Your task to perform on an android device: What's the weather today? Image 0: 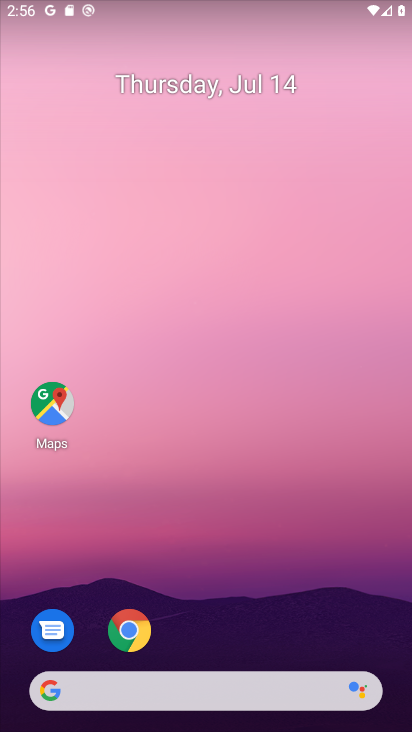
Step 0: drag from (222, 656) to (124, 1)
Your task to perform on an android device: What's the weather today? Image 1: 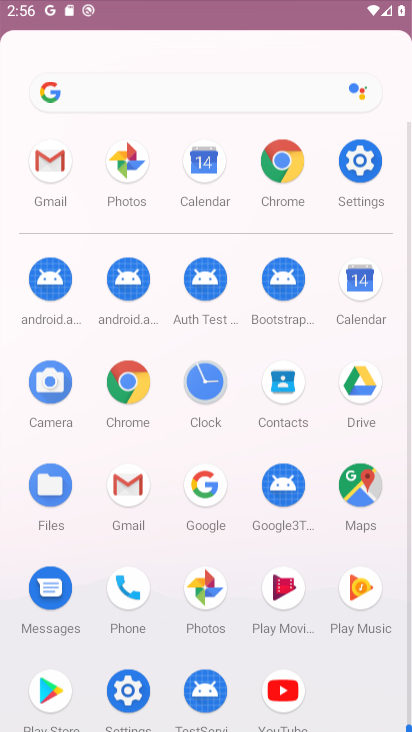
Step 1: drag from (192, 396) to (131, 19)
Your task to perform on an android device: What's the weather today? Image 2: 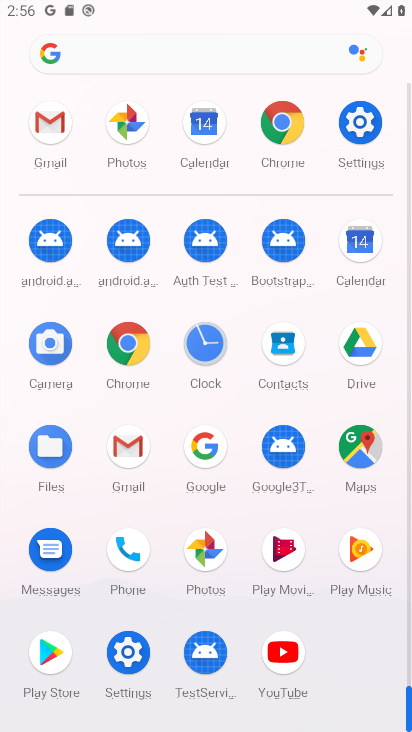
Step 2: click (292, 133)
Your task to perform on an android device: What's the weather today? Image 3: 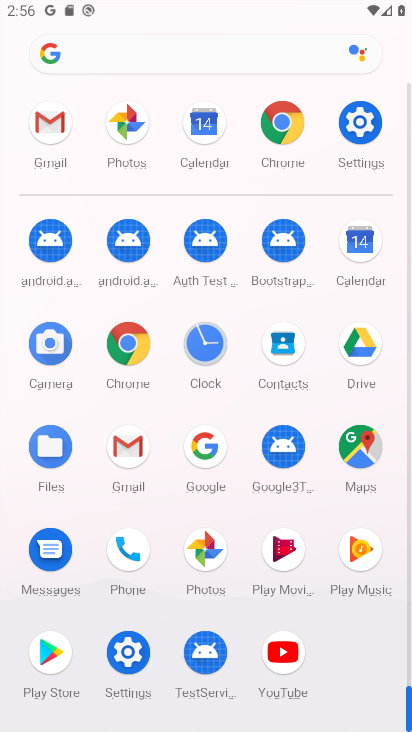
Step 3: click (288, 126)
Your task to perform on an android device: What's the weather today? Image 4: 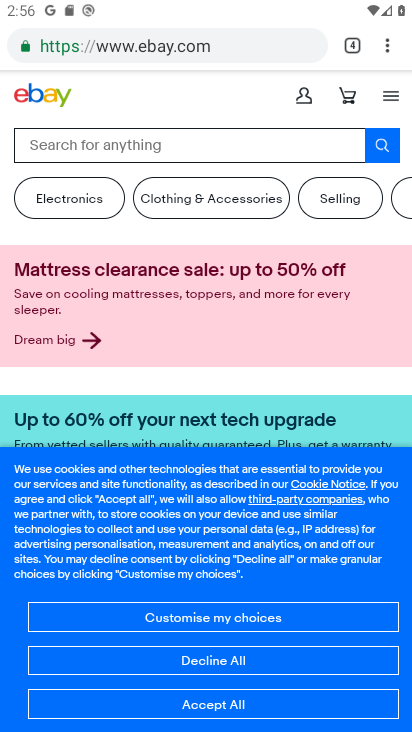
Step 4: drag from (380, 42) to (237, 87)
Your task to perform on an android device: What's the weather today? Image 5: 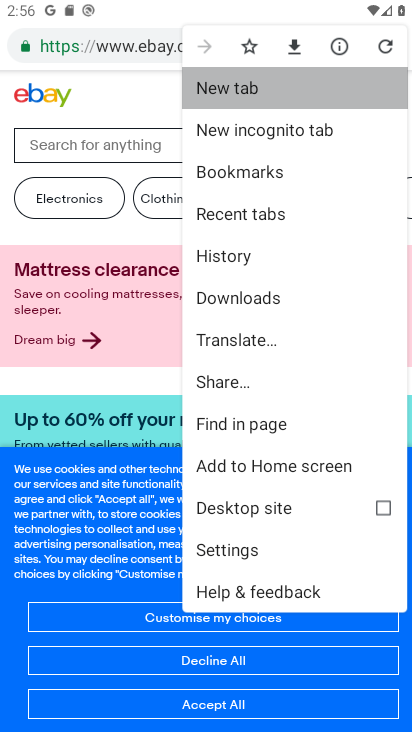
Step 5: click (237, 87)
Your task to perform on an android device: What's the weather today? Image 6: 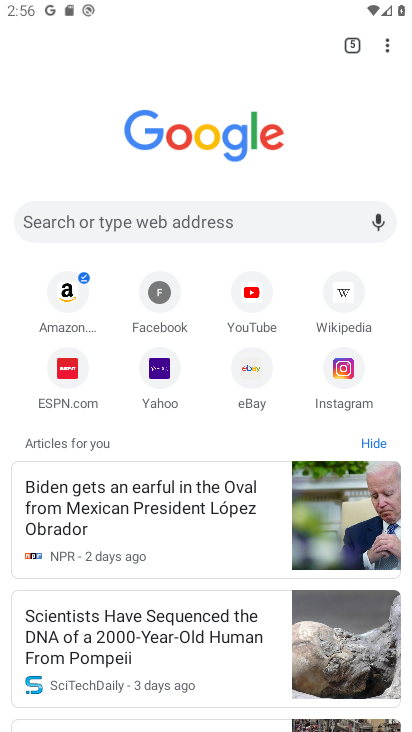
Step 6: click (92, 219)
Your task to perform on an android device: What's the weather today? Image 7: 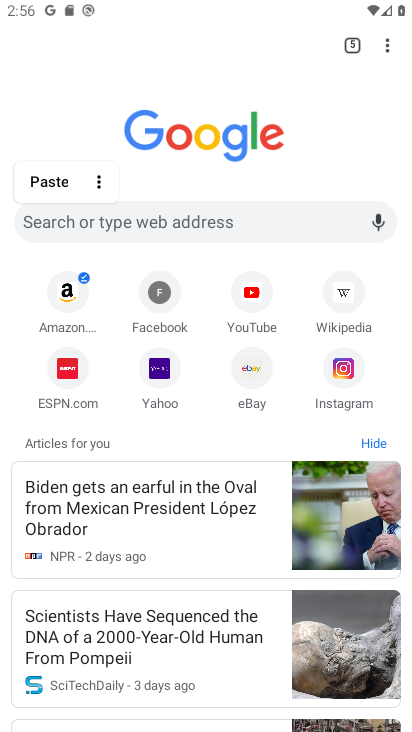
Step 7: type "weather today?"
Your task to perform on an android device: What's the weather today? Image 8: 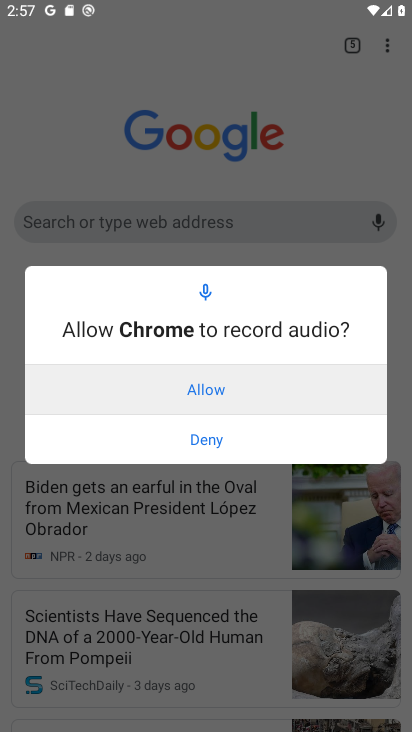
Step 8: click (213, 385)
Your task to perform on an android device: What's the weather today? Image 9: 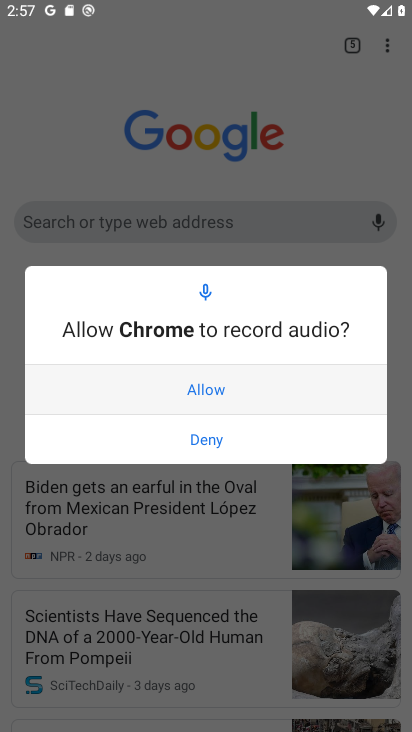
Step 9: click (213, 388)
Your task to perform on an android device: What's the weather today? Image 10: 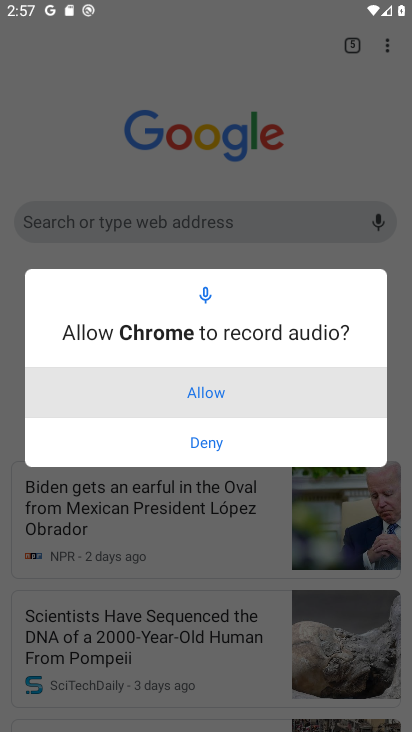
Step 10: click (213, 388)
Your task to perform on an android device: What's the weather today? Image 11: 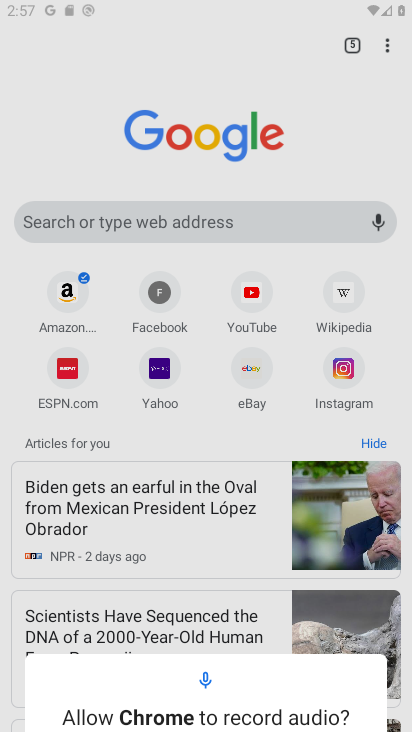
Step 11: click (213, 389)
Your task to perform on an android device: What's the weather today? Image 12: 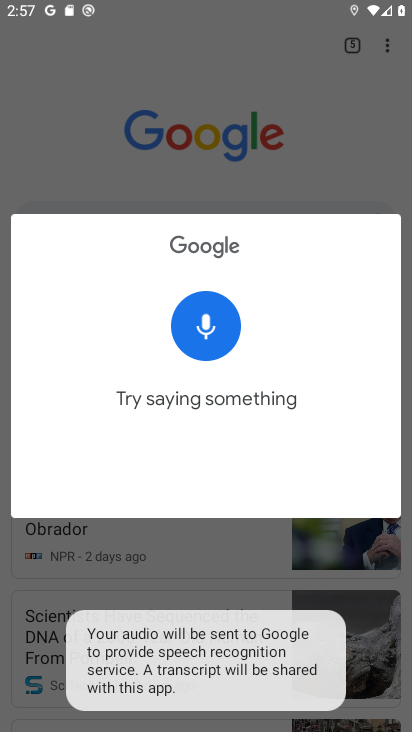
Step 12: click (85, 144)
Your task to perform on an android device: What's the weather today? Image 13: 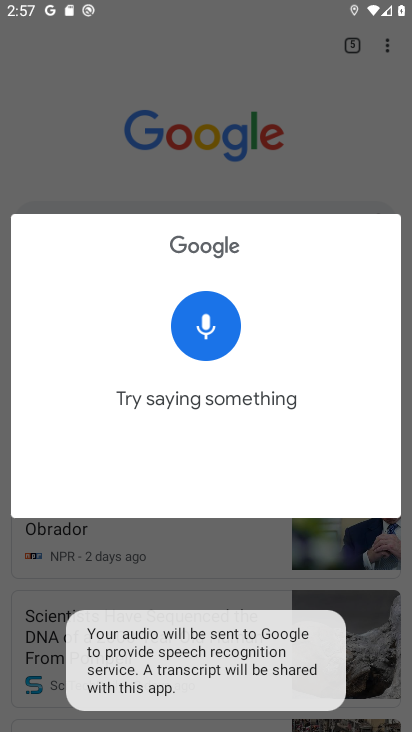
Step 13: click (85, 144)
Your task to perform on an android device: What's the weather today? Image 14: 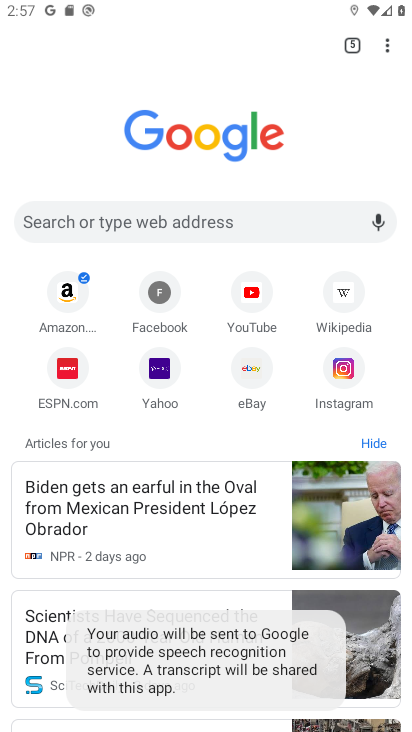
Step 14: click (85, 144)
Your task to perform on an android device: What's the weather today? Image 15: 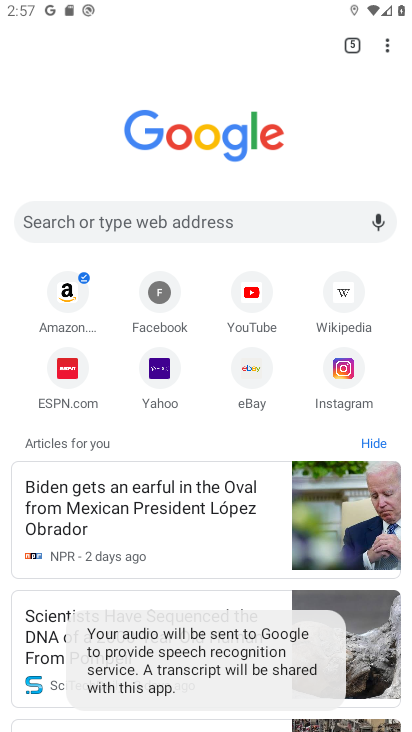
Step 15: click (86, 145)
Your task to perform on an android device: What's the weather today? Image 16: 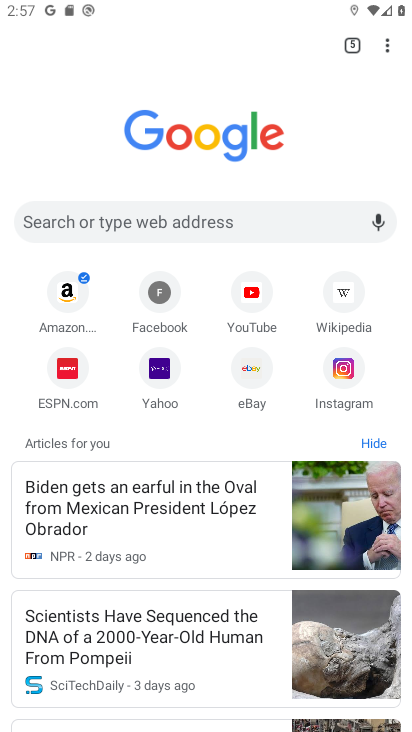
Step 16: click (89, 223)
Your task to perform on an android device: What's the weather today? Image 17: 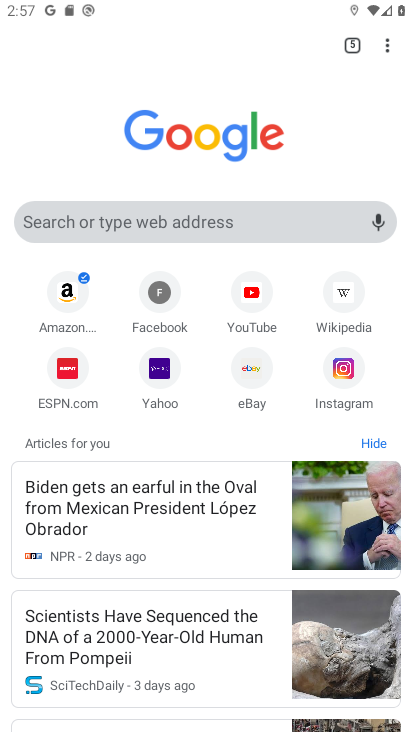
Step 17: click (89, 223)
Your task to perform on an android device: What's the weather today? Image 18: 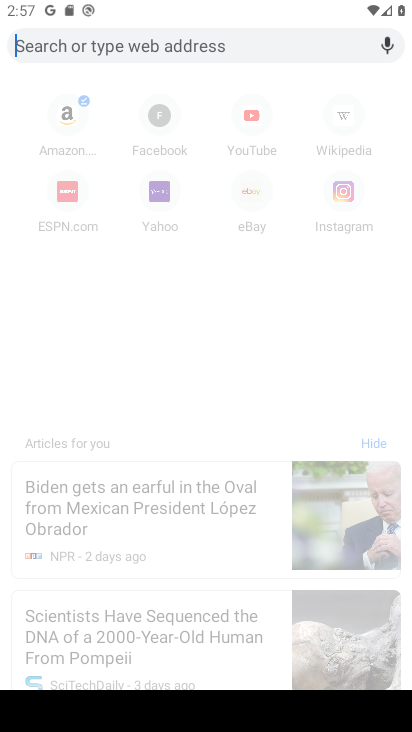
Step 18: type "today weather?"
Your task to perform on an android device: What's the weather today? Image 19: 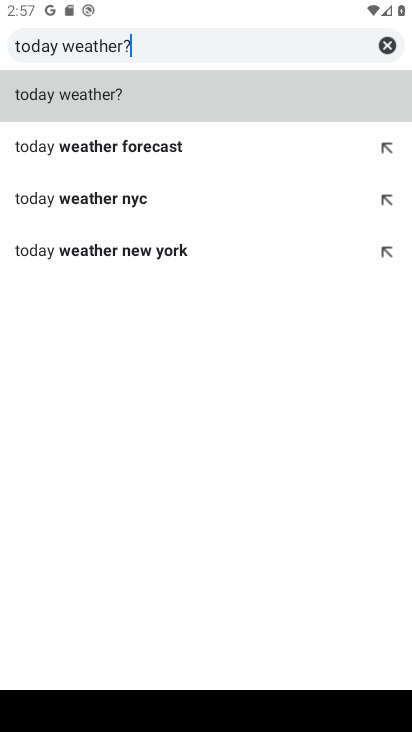
Step 19: click (91, 134)
Your task to perform on an android device: What's the weather today? Image 20: 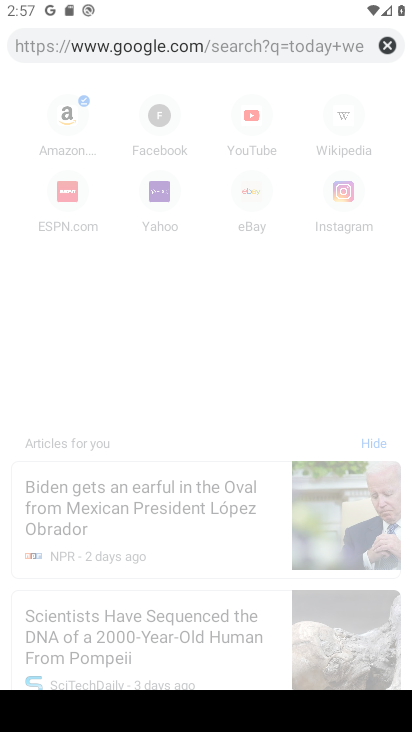
Step 20: click (82, 101)
Your task to perform on an android device: What's the weather today? Image 21: 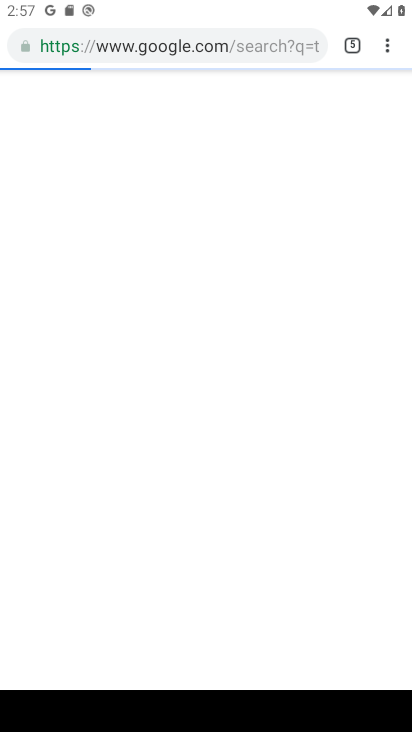
Step 21: click (82, 101)
Your task to perform on an android device: What's the weather today? Image 22: 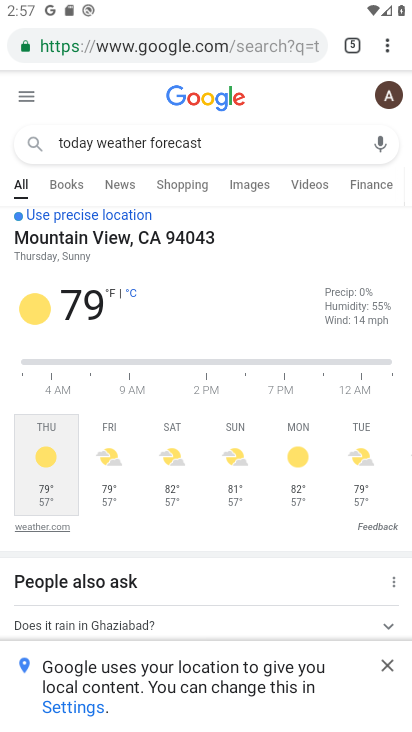
Step 22: task complete